Your task to perform on an android device: Go to Reddit.com Image 0: 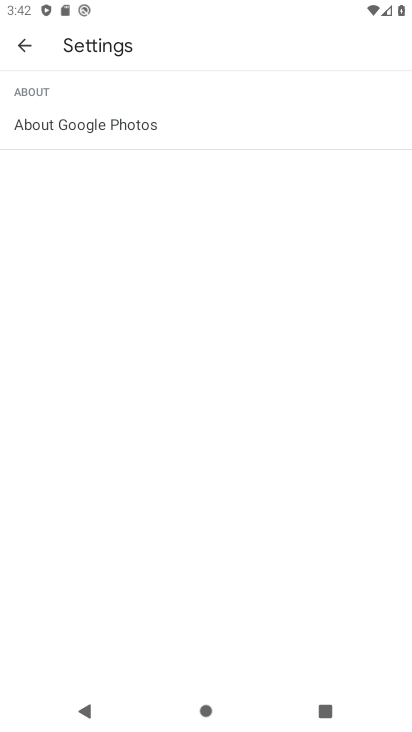
Step 0: press home button
Your task to perform on an android device: Go to Reddit.com Image 1: 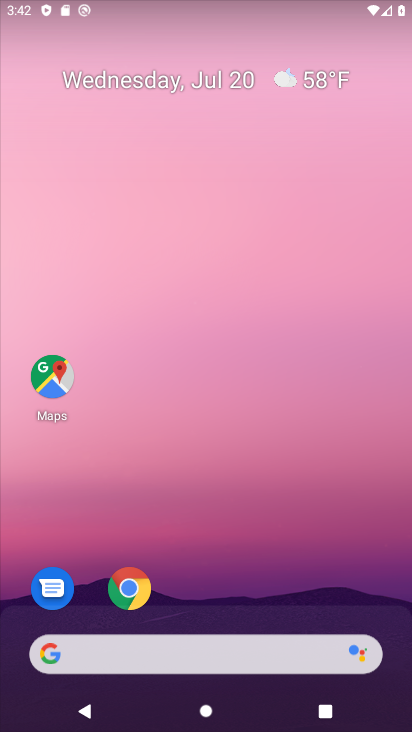
Step 1: drag from (192, 575) to (193, 156)
Your task to perform on an android device: Go to Reddit.com Image 2: 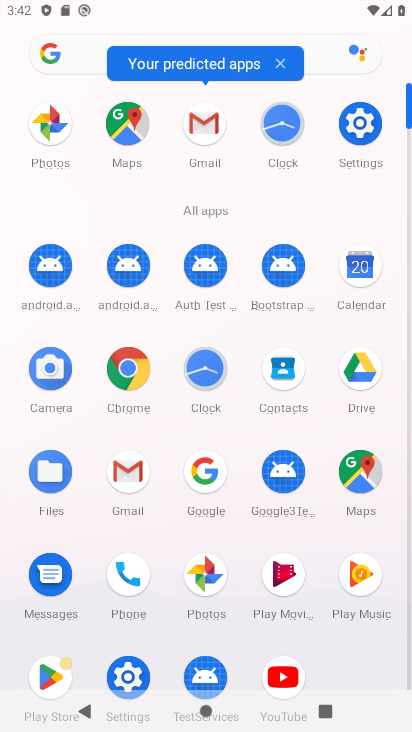
Step 2: click (209, 475)
Your task to perform on an android device: Go to Reddit.com Image 3: 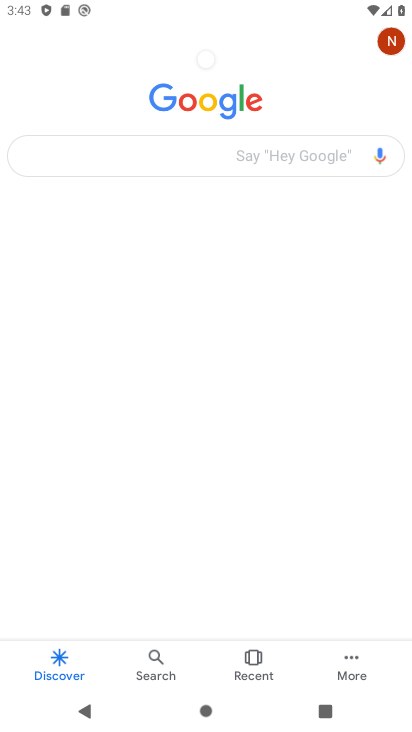
Step 3: click (125, 161)
Your task to perform on an android device: Go to Reddit.com Image 4: 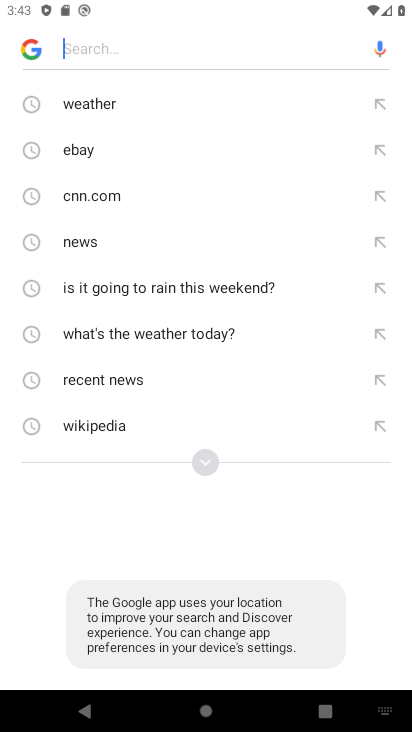
Step 4: click (197, 467)
Your task to perform on an android device: Go to Reddit.com Image 5: 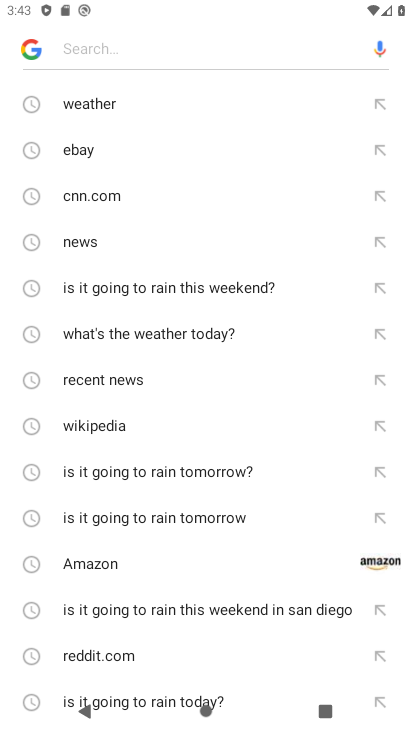
Step 5: click (103, 656)
Your task to perform on an android device: Go to Reddit.com Image 6: 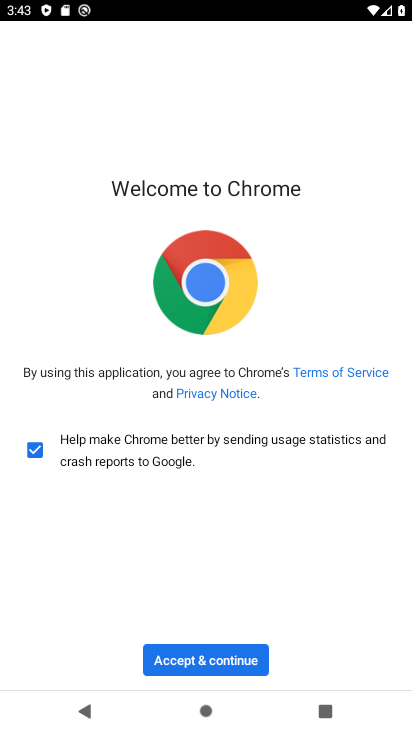
Step 6: click (190, 668)
Your task to perform on an android device: Go to Reddit.com Image 7: 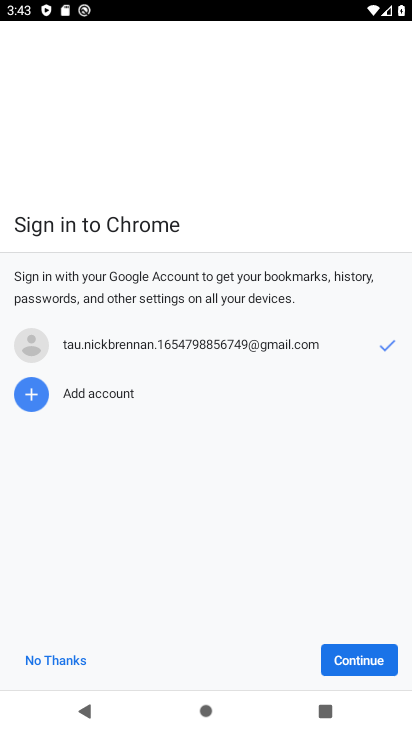
Step 7: click (351, 651)
Your task to perform on an android device: Go to Reddit.com Image 8: 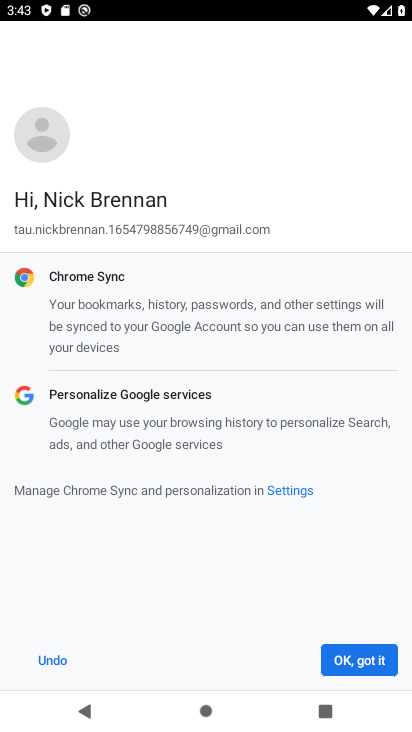
Step 8: click (346, 662)
Your task to perform on an android device: Go to Reddit.com Image 9: 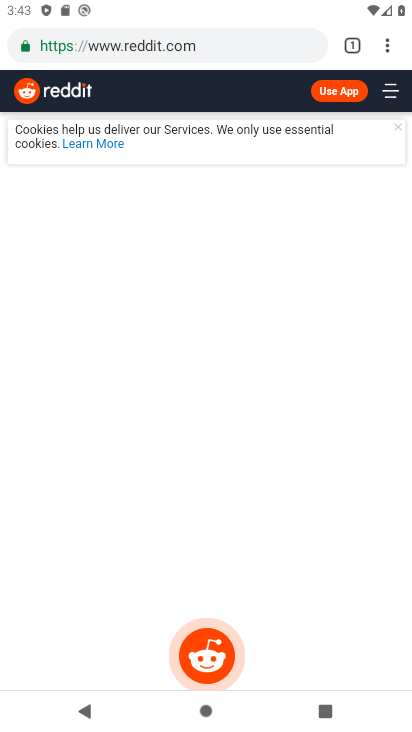
Step 9: task complete